Your task to perform on an android device: What is the recent news? Image 0: 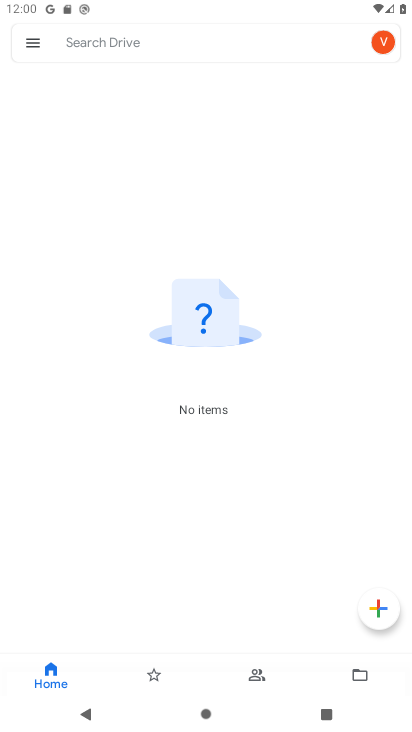
Step 0: press home button
Your task to perform on an android device: What is the recent news? Image 1: 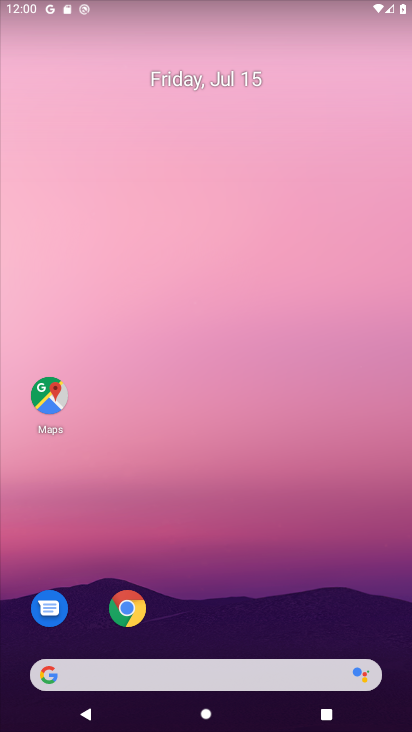
Step 1: task complete